Your task to perform on an android device: Open Google Image 0: 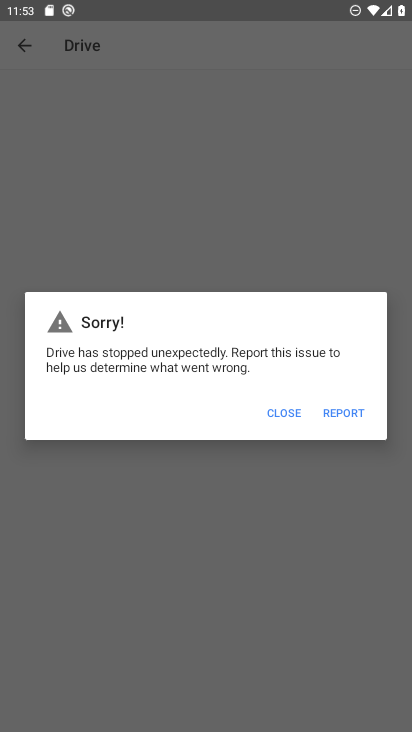
Step 0: press home button
Your task to perform on an android device: Open Google Image 1: 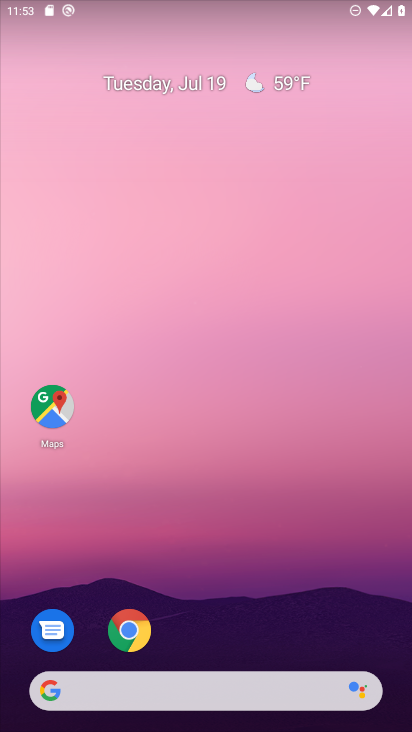
Step 1: drag from (219, 498) to (292, 0)
Your task to perform on an android device: Open Google Image 2: 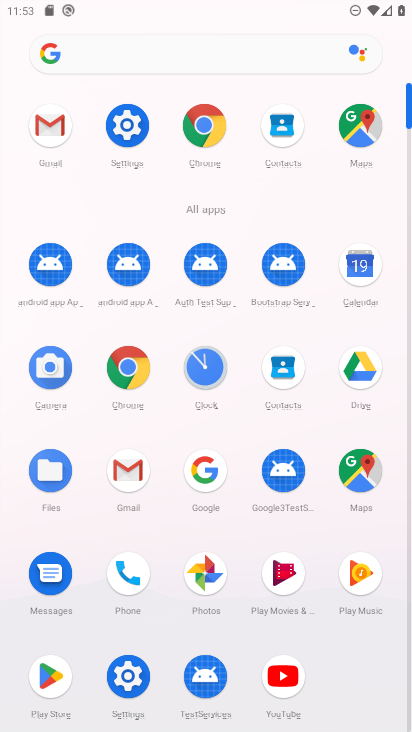
Step 2: click (139, 358)
Your task to perform on an android device: Open Google Image 3: 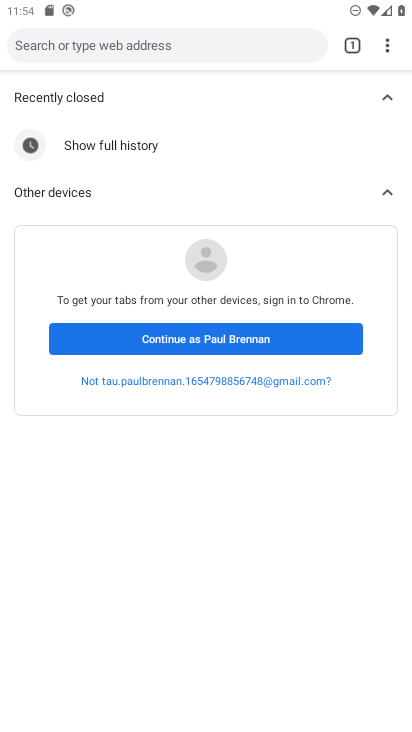
Step 3: task complete